Your task to perform on an android device: change alarm snooze length Image 0: 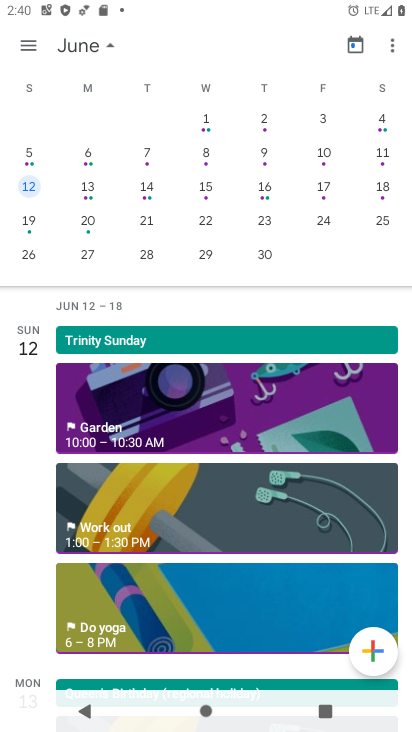
Step 0: press home button
Your task to perform on an android device: change alarm snooze length Image 1: 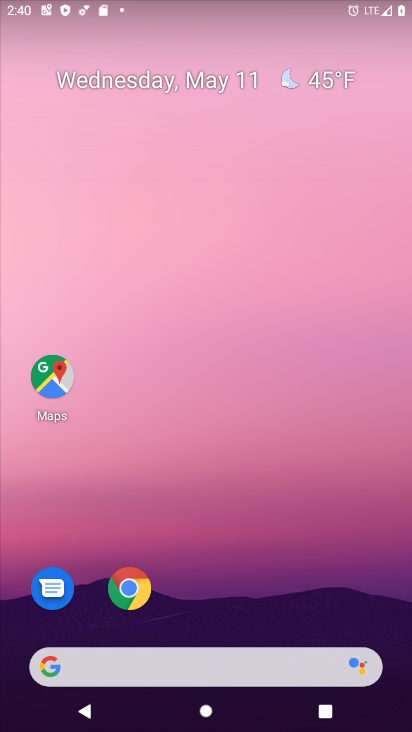
Step 1: drag from (243, 571) to (283, 306)
Your task to perform on an android device: change alarm snooze length Image 2: 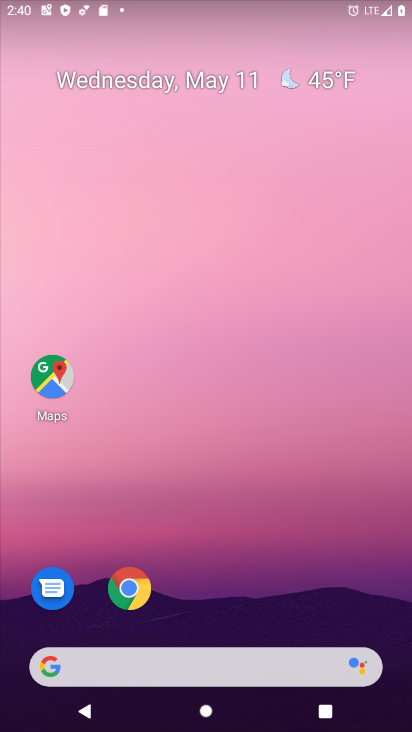
Step 2: drag from (205, 615) to (260, 140)
Your task to perform on an android device: change alarm snooze length Image 3: 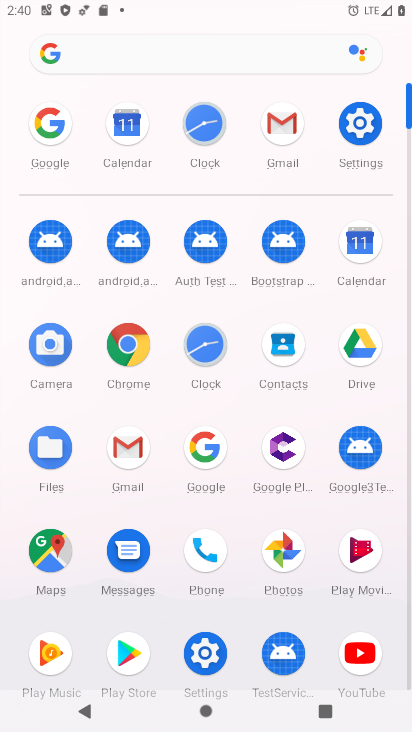
Step 3: click (218, 128)
Your task to perform on an android device: change alarm snooze length Image 4: 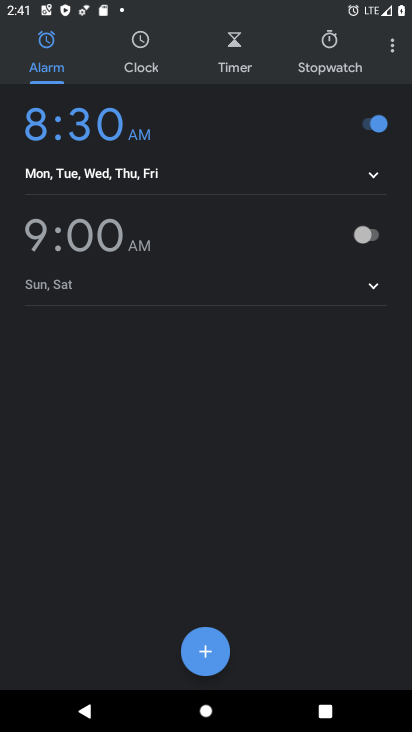
Step 4: click (402, 57)
Your task to perform on an android device: change alarm snooze length Image 5: 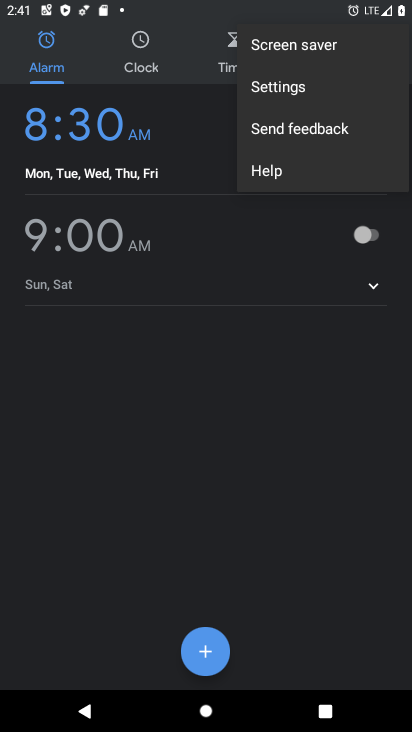
Step 5: click (271, 99)
Your task to perform on an android device: change alarm snooze length Image 6: 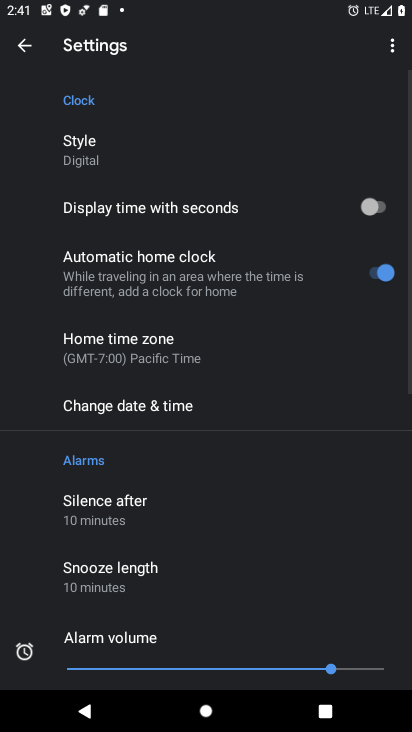
Step 6: drag from (255, 630) to (270, 388)
Your task to perform on an android device: change alarm snooze length Image 7: 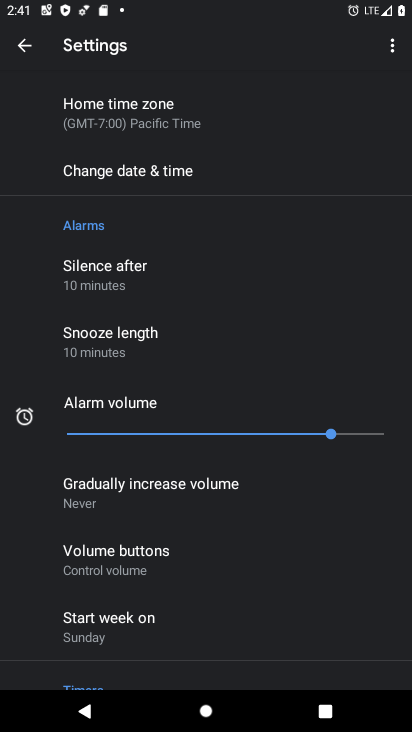
Step 7: drag from (266, 580) to (281, 311)
Your task to perform on an android device: change alarm snooze length Image 8: 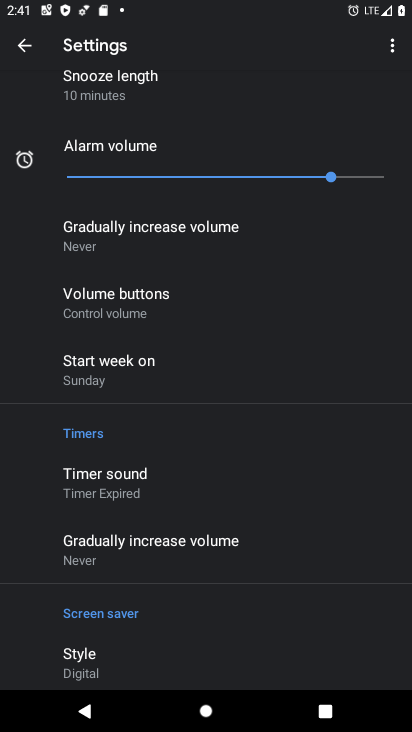
Step 8: click (154, 83)
Your task to perform on an android device: change alarm snooze length Image 9: 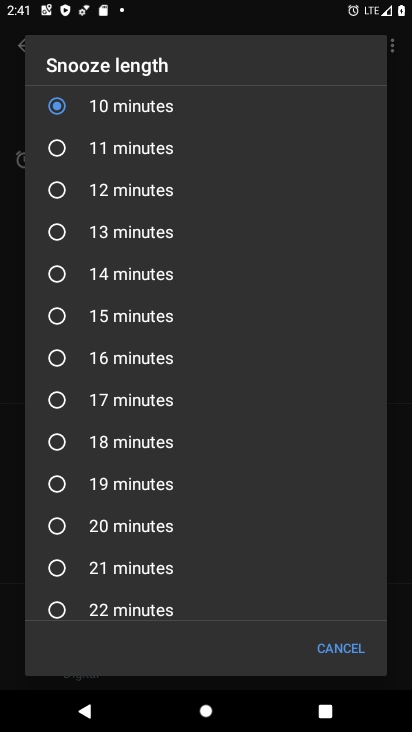
Step 9: click (160, 396)
Your task to perform on an android device: change alarm snooze length Image 10: 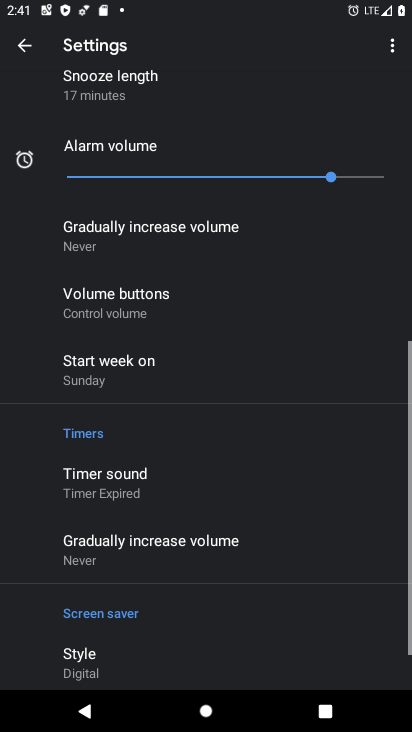
Step 10: task complete